Your task to perform on an android device: Go to privacy settings Image 0: 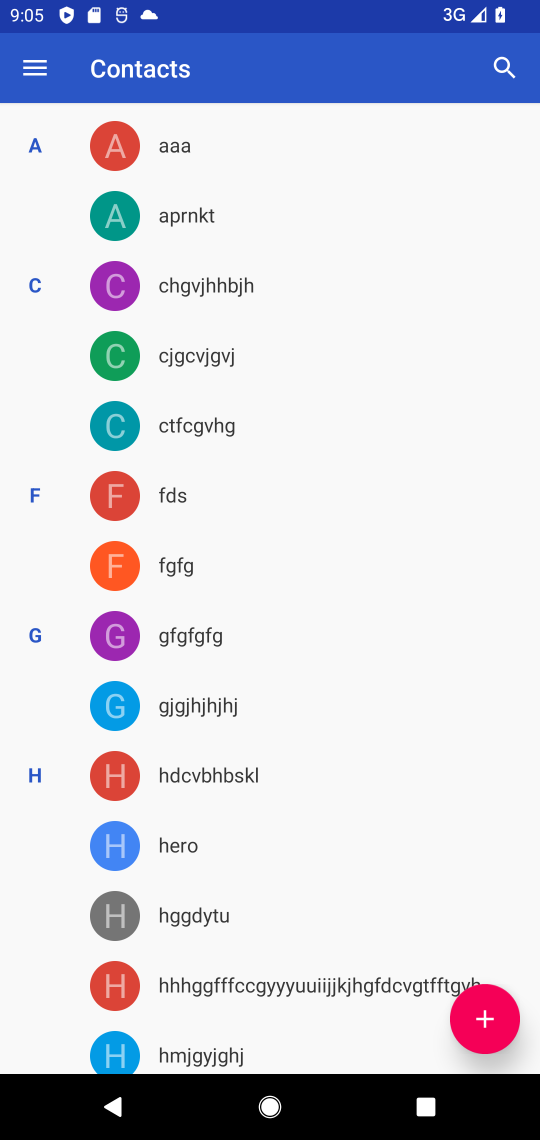
Step 0: drag from (282, 878) to (410, 564)
Your task to perform on an android device: Go to privacy settings Image 1: 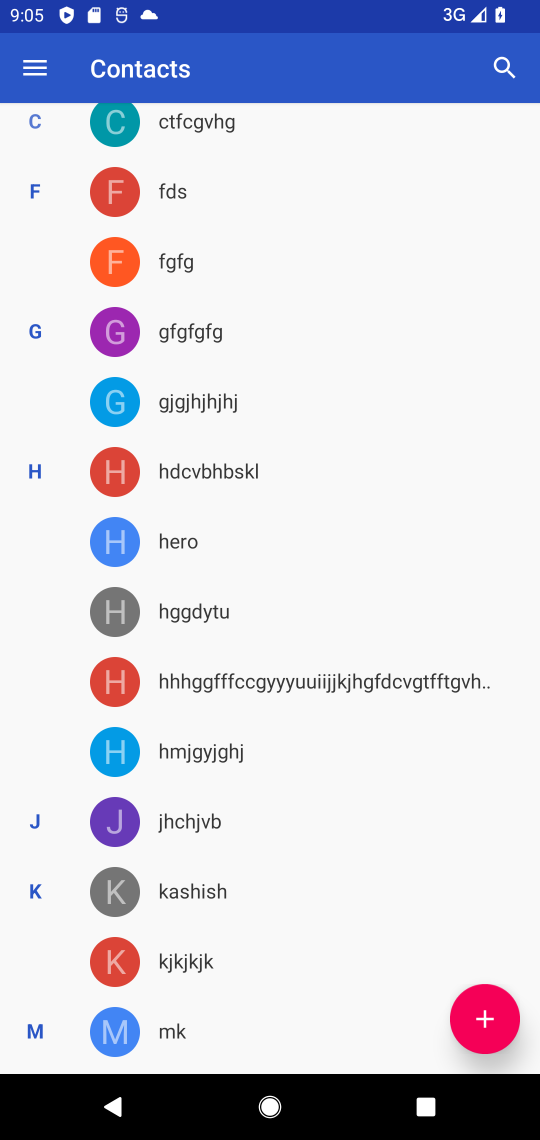
Step 1: drag from (188, 843) to (345, 358)
Your task to perform on an android device: Go to privacy settings Image 2: 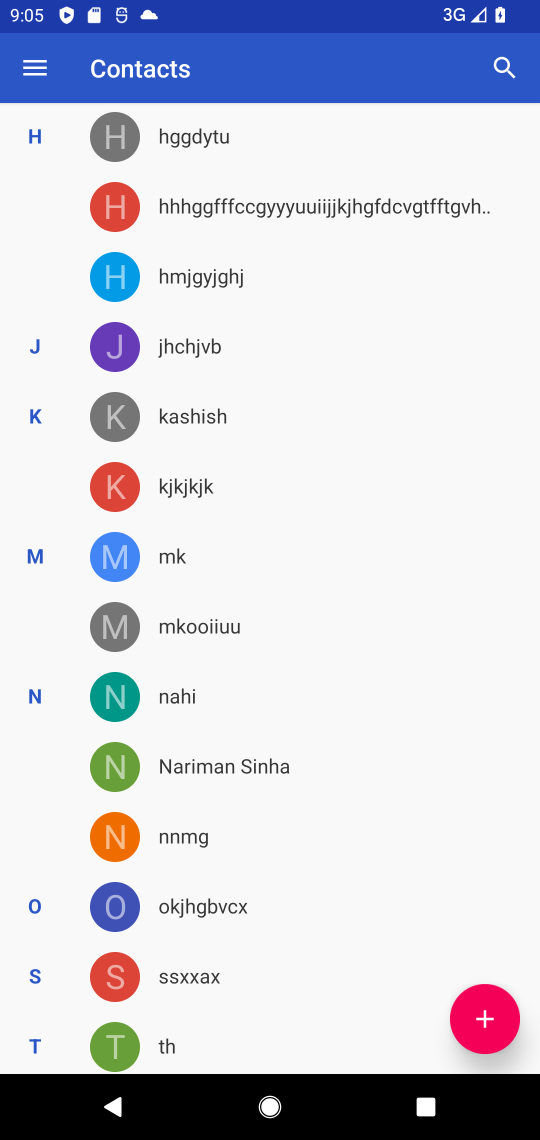
Step 2: drag from (249, 962) to (334, 526)
Your task to perform on an android device: Go to privacy settings Image 3: 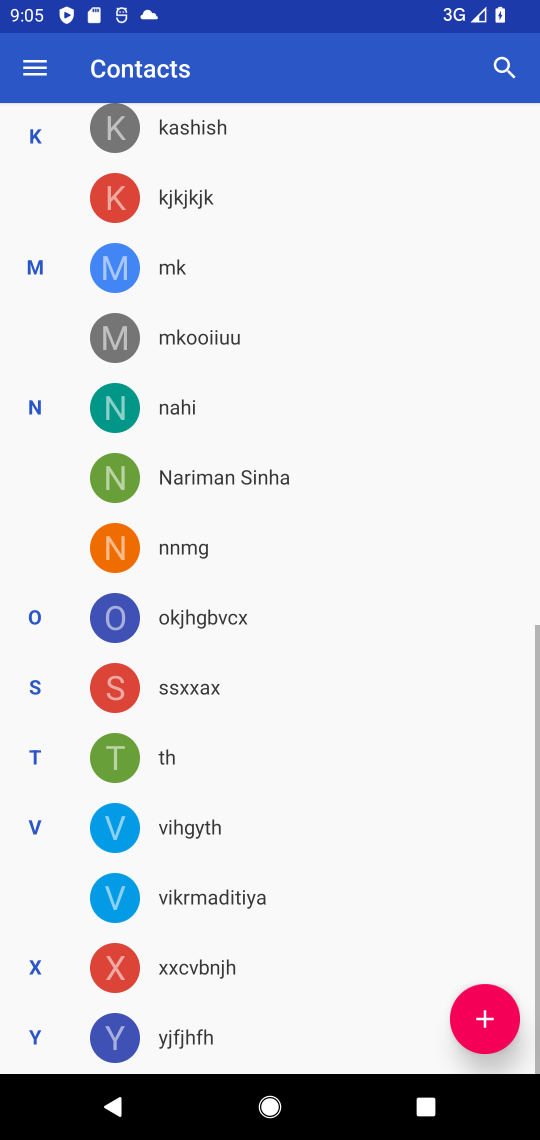
Step 3: press home button
Your task to perform on an android device: Go to privacy settings Image 4: 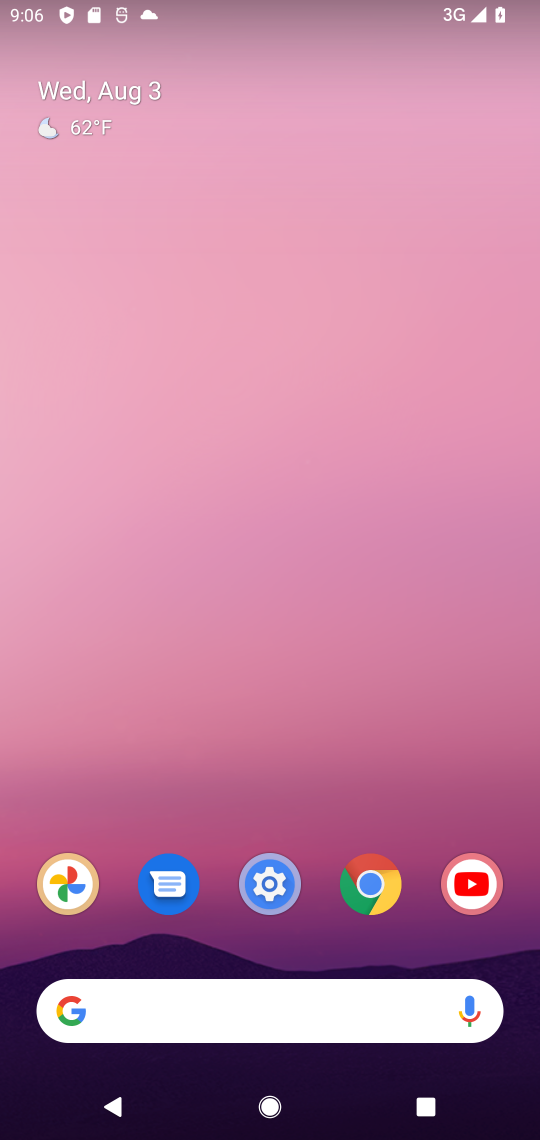
Step 4: drag from (205, 945) to (357, 331)
Your task to perform on an android device: Go to privacy settings Image 5: 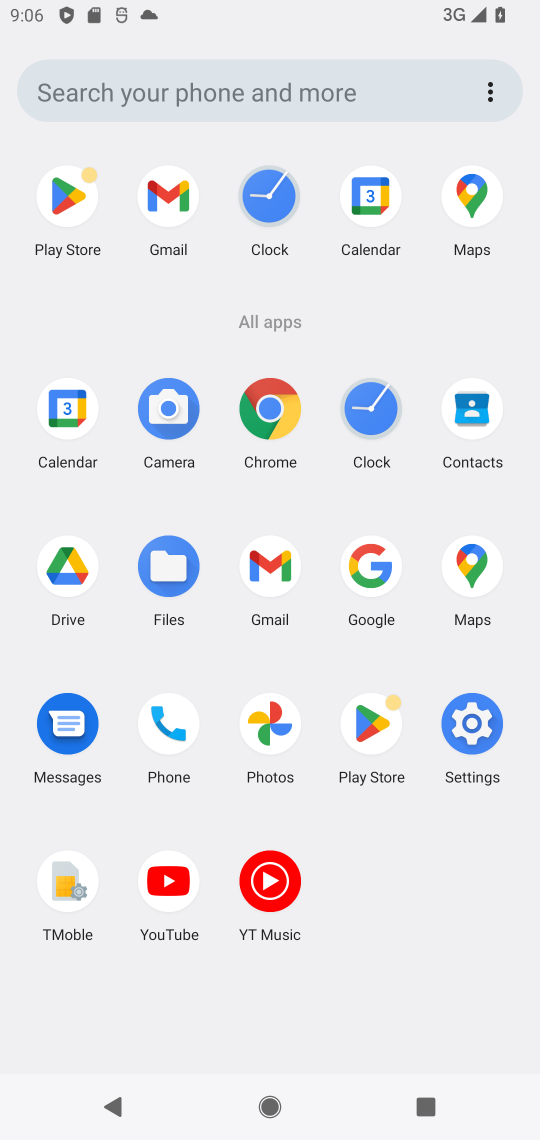
Step 5: click (498, 715)
Your task to perform on an android device: Go to privacy settings Image 6: 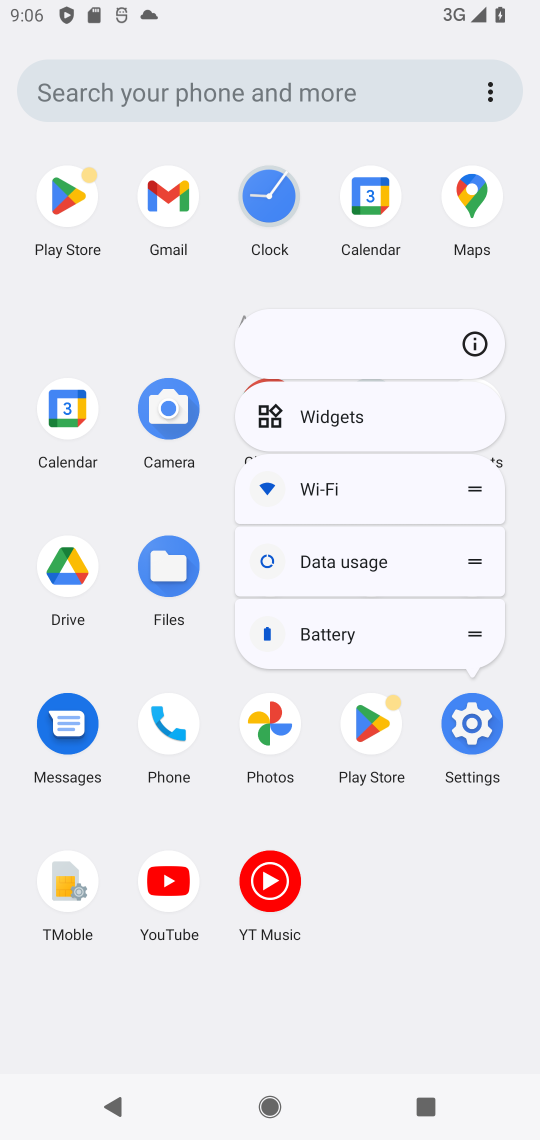
Step 6: click (475, 336)
Your task to perform on an android device: Go to privacy settings Image 7: 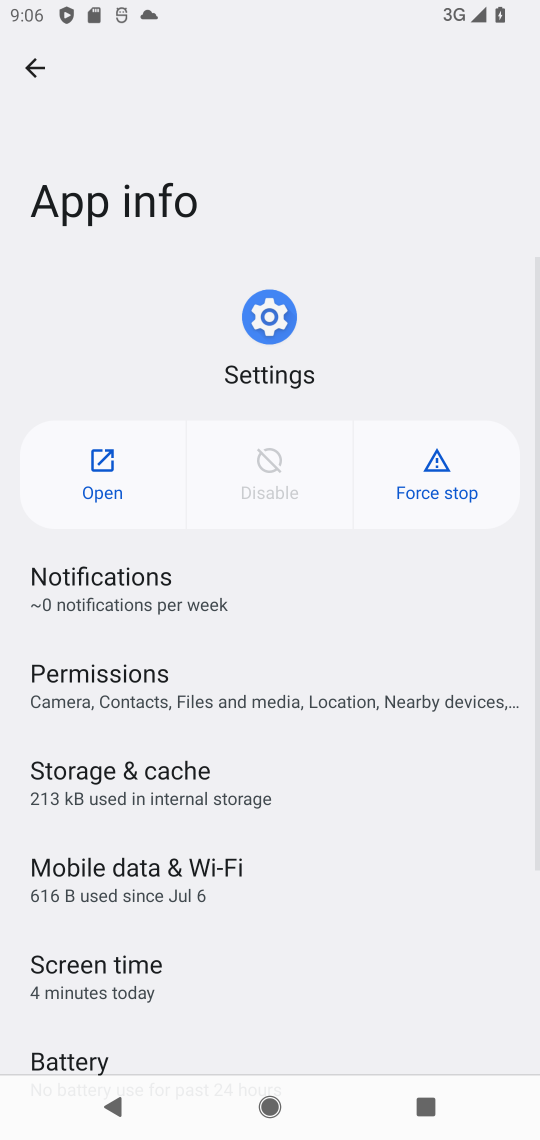
Step 7: click (81, 487)
Your task to perform on an android device: Go to privacy settings Image 8: 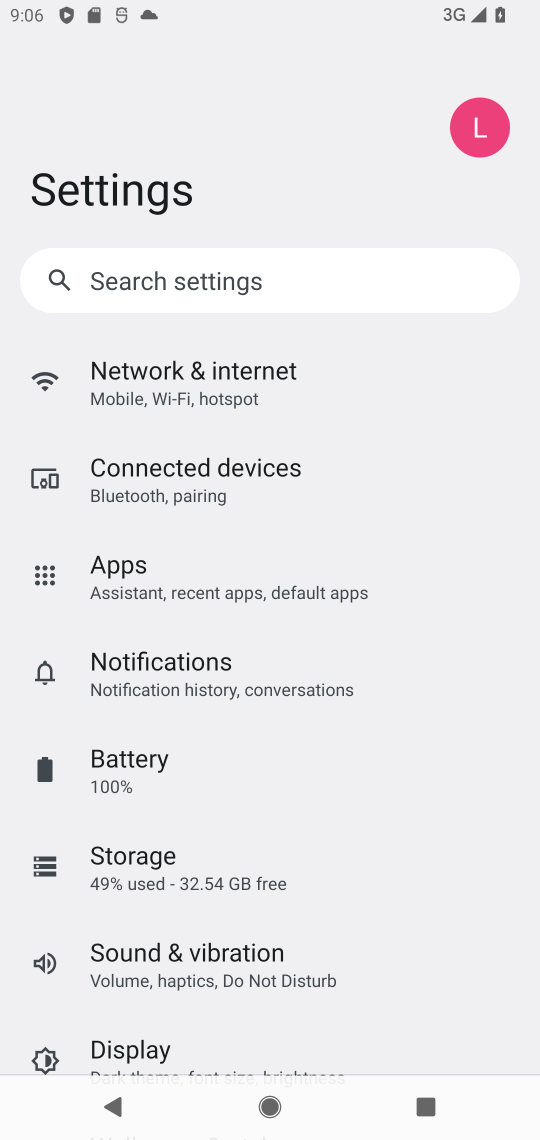
Step 8: drag from (243, 917) to (378, 452)
Your task to perform on an android device: Go to privacy settings Image 9: 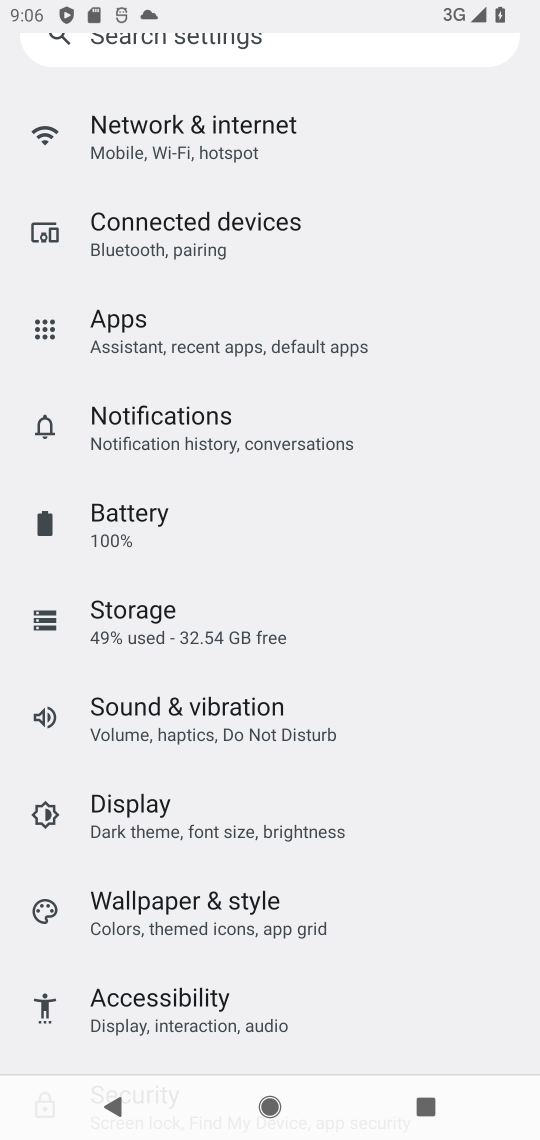
Step 9: drag from (228, 971) to (344, 261)
Your task to perform on an android device: Go to privacy settings Image 10: 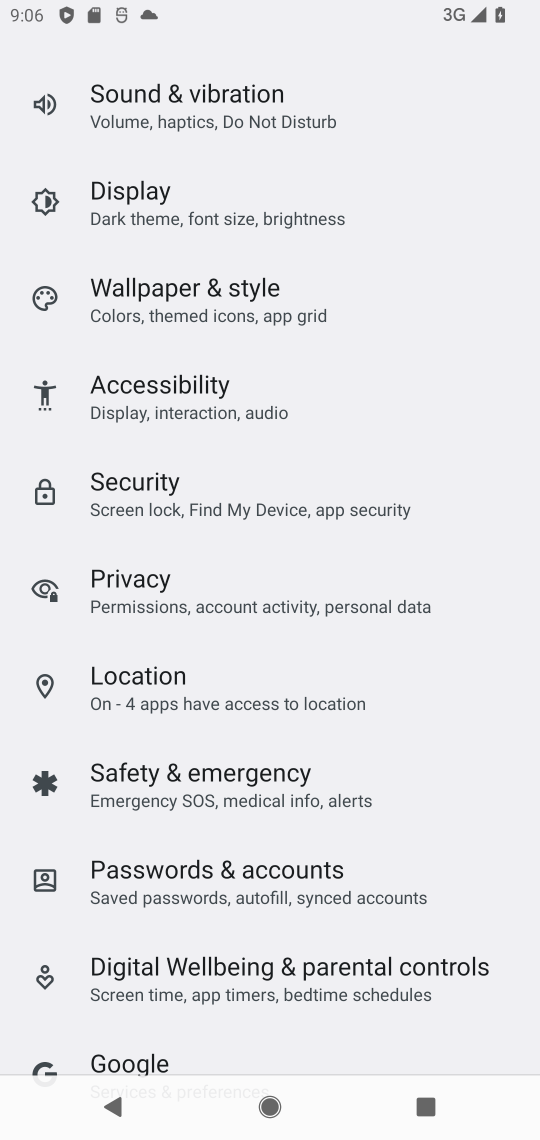
Step 10: click (177, 574)
Your task to perform on an android device: Go to privacy settings Image 11: 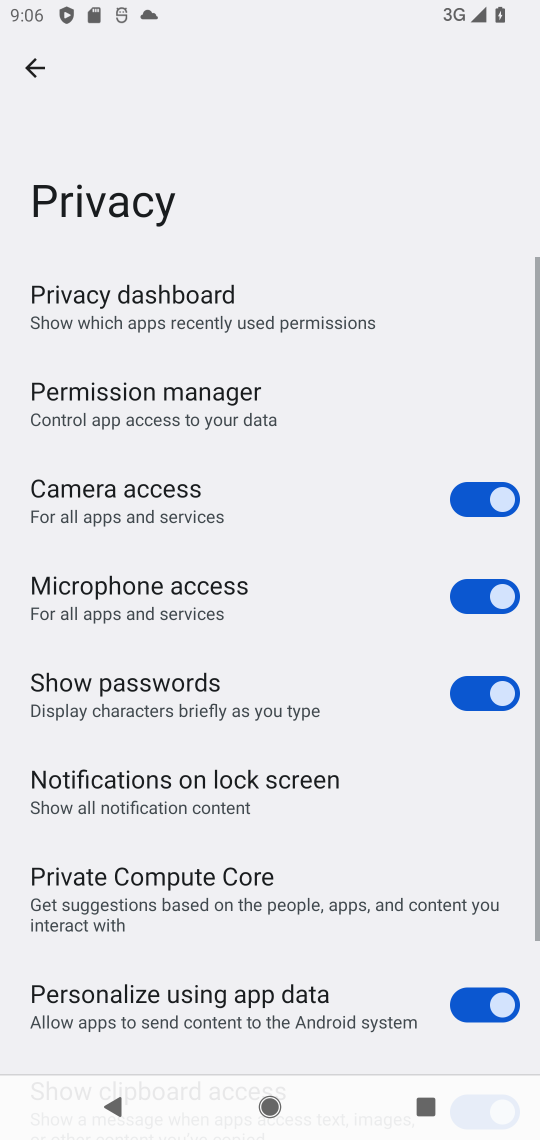
Step 11: task complete